Your task to perform on an android device: Go to Maps Image 0: 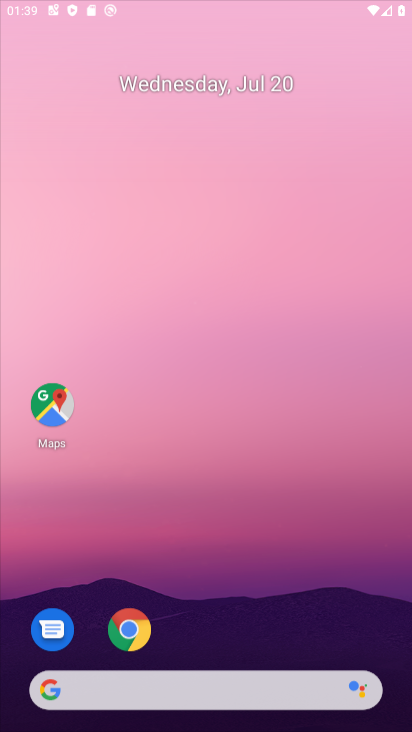
Step 0: drag from (264, 274) to (261, 172)
Your task to perform on an android device: Go to Maps Image 1: 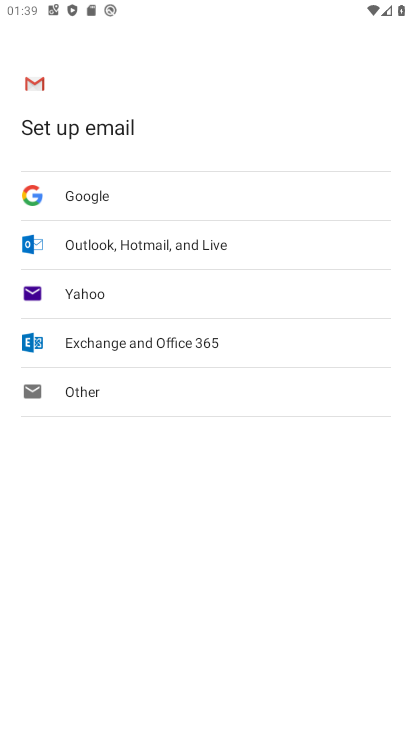
Step 1: press home button
Your task to perform on an android device: Go to Maps Image 2: 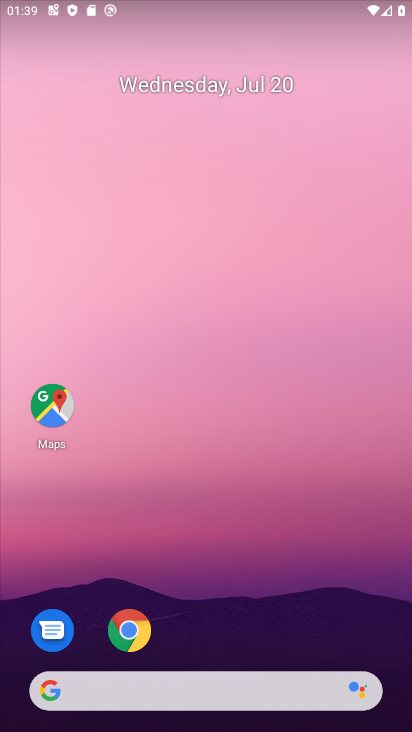
Step 2: click (53, 405)
Your task to perform on an android device: Go to Maps Image 3: 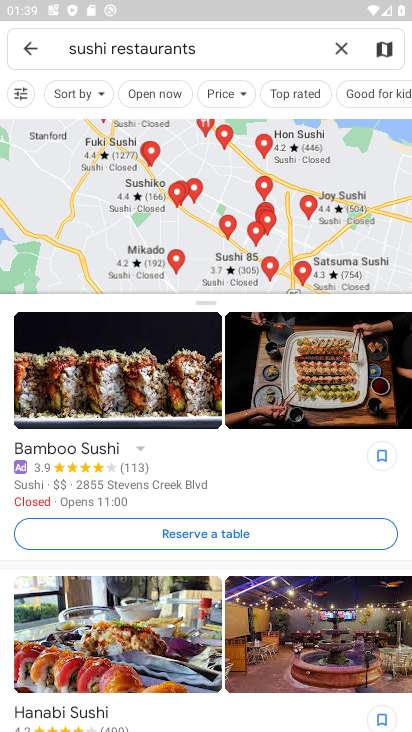
Step 3: task complete